Your task to perform on an android device: Check the weather Image 0: 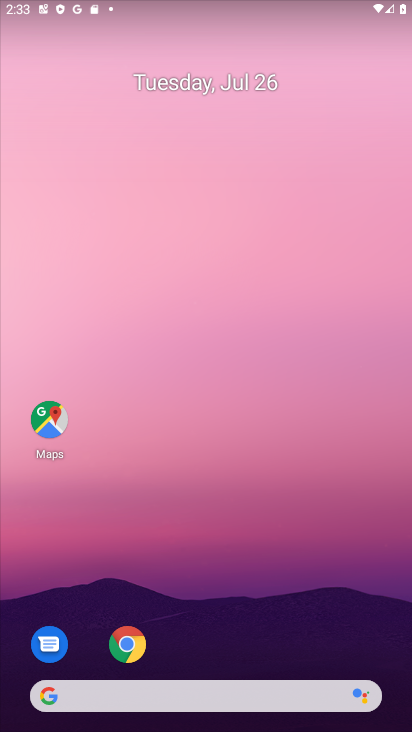
Step 0: click (247, 689)
Your task to perform on an android device: Check the weather Image 1: 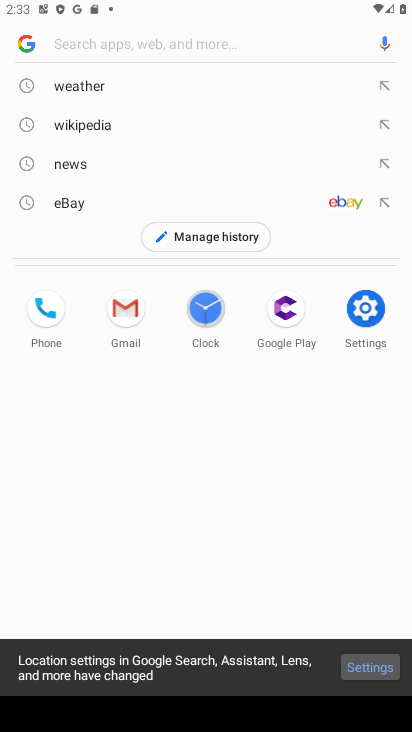
Step 1: click (79, 81)
Your task to perform on an android device: Check the weather Image 2: 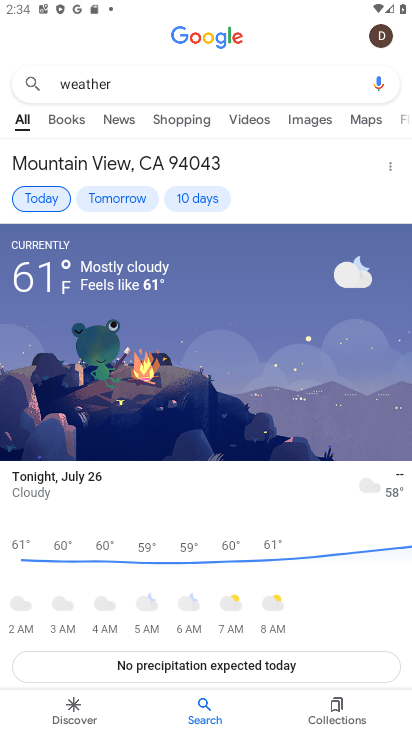
Step 2: task complete